Your task to perform on an android device: Clear all items from cart on ebay. Add "razer blade" to the cart on ebay Image 0: 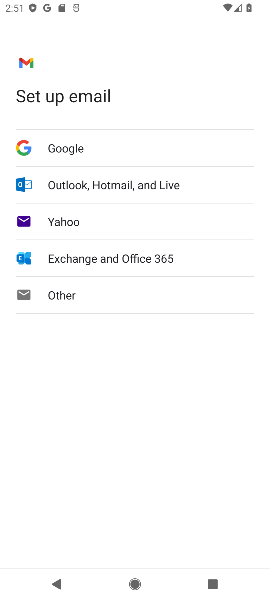
Step 0: press home button
Your task to perform on an android device: Clear all items from cart on ebay. Add "razer blade" to the cart on ebay Image 1: 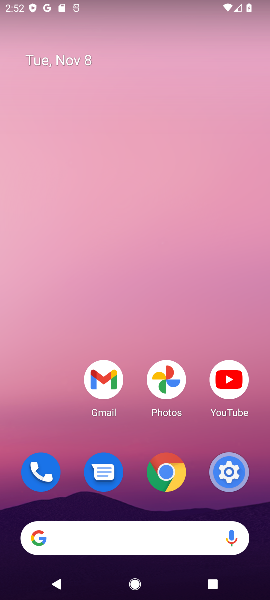
Step 1: click (150, 533)
Your task to perform on an android device: Clear all items from cart on ebay. Add "razer blade" to the cart on ebay Image 2: 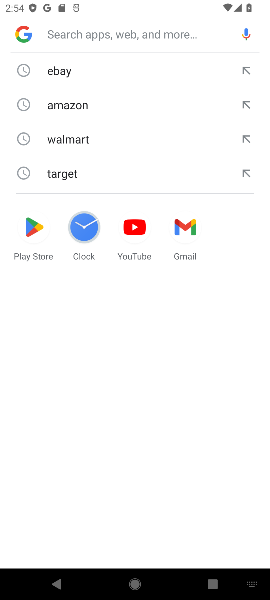
Step 2: click (65, 60)
Your task to perform on an android device: Clear all items from cart on ebay. Add "razer blade" to the cart on ebay Image 3: 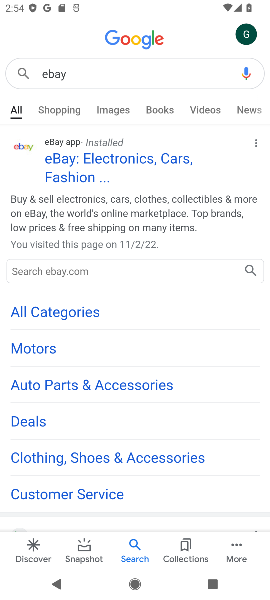
Step 3: click (90, 154)
Your task to perform on an android device: Clear all items from cart on ebay. Add "razer blade" to the cart on ebay Image 4: 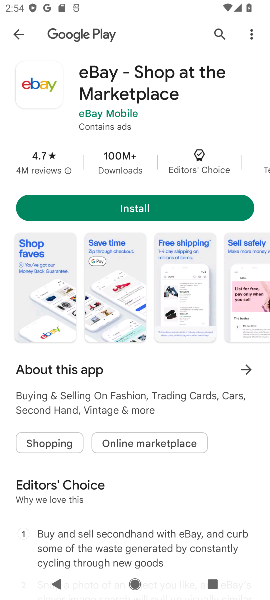
Step 4: task complete